Your task to perform on an android device: change the upload size in google photos Image 0: 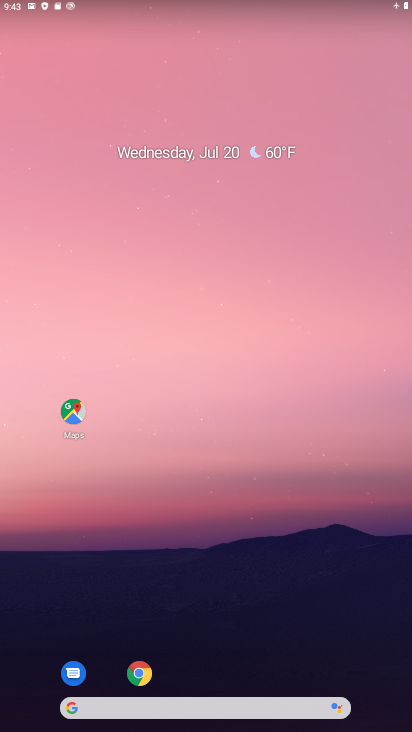
Step 0: drag from (216, 658) to (210, 4)
Your task to perform on an android device: change the upload size in google photos Image 1: 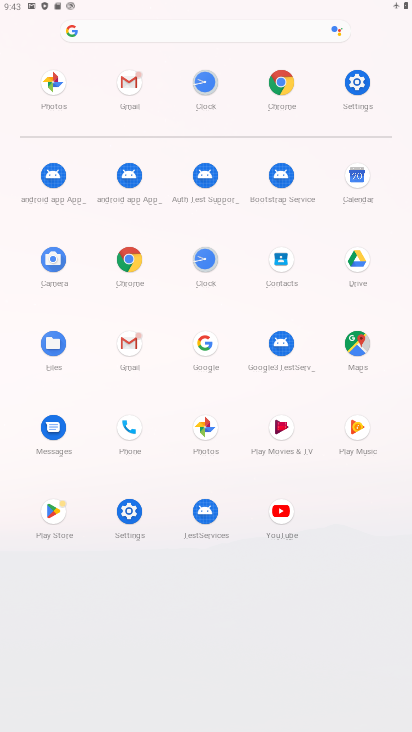
Step 1: click (209, 436)
Your task to perform on an android device: change the upload size in google photos Image 2: 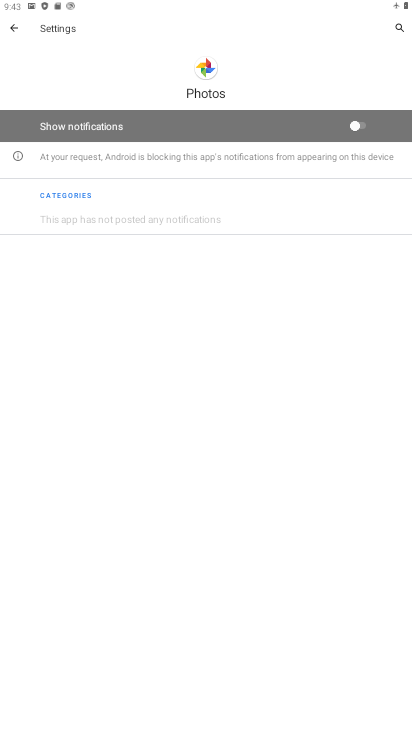
Step 2: click (17, 35)
Your task to perform on an android device: change the upload size in google photos Image 3: 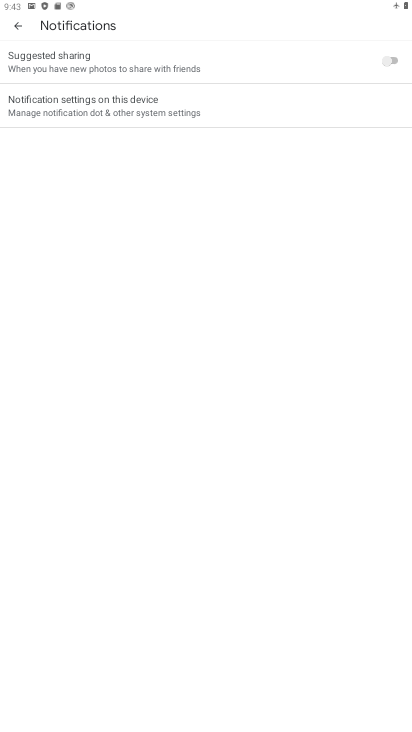
Step 3: click (14, 26)
Your task to perform on an android device: change the upload size in google photos Image 4: 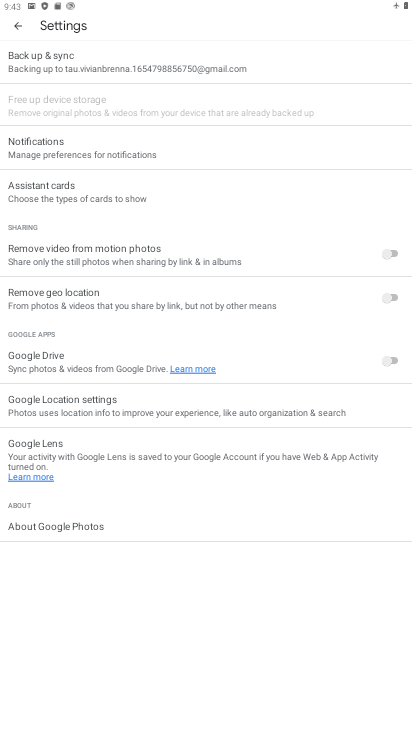
Step 4: click (16, 30)
Your task to perform on an android device: change the upload size in google photos Image 5: 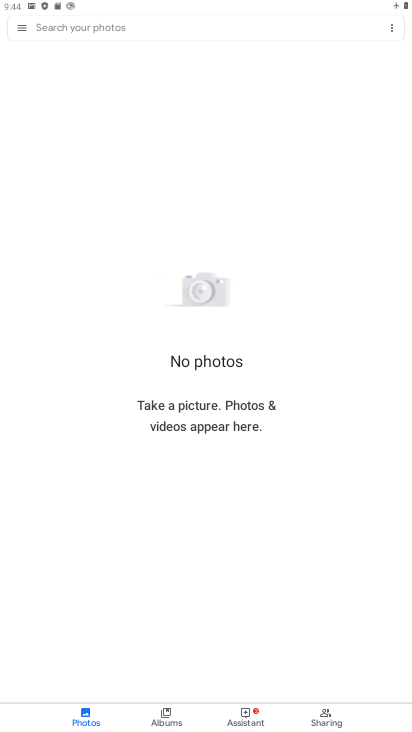
Step 5: click (26, 23)
Your task to perform on an android device: change the upload size in google photos Image 6: 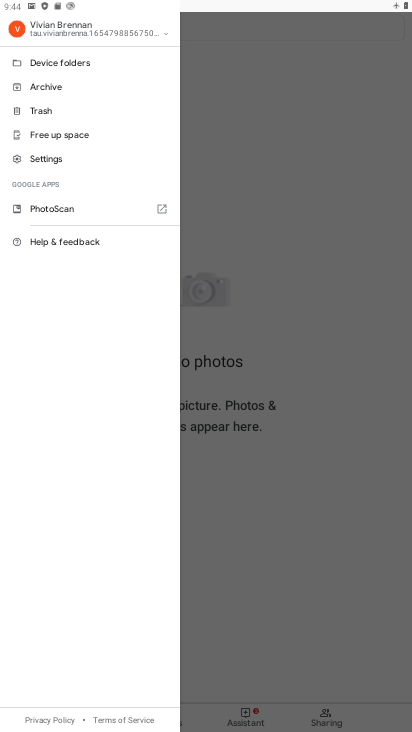
Step 6: click (58, 168)
Your task to perform on an android device: change the upload size in google photos Image 7: 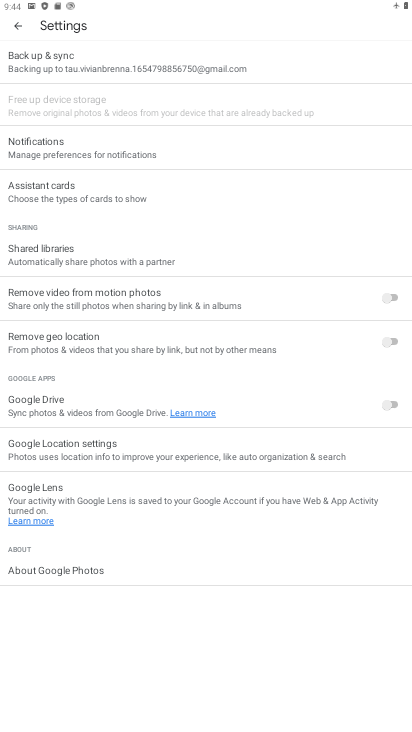
Step 7: click (84, 61)
Your task to perform on an android device: change the upload size in google photos Image 8: 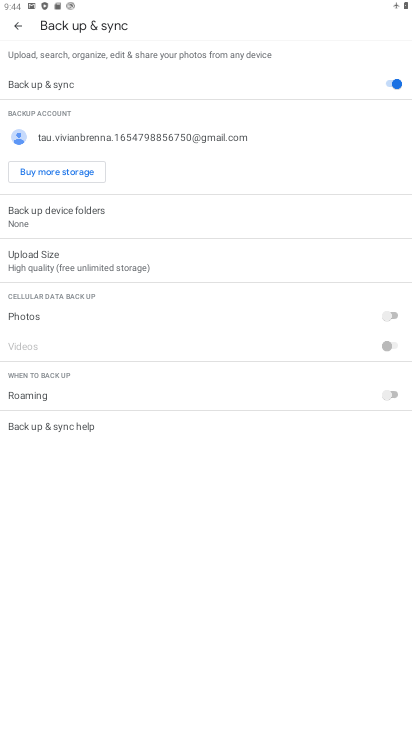
Step 8: click (90, 256)
Your task to perform on an android device: change the upload size in google photos Image 9: 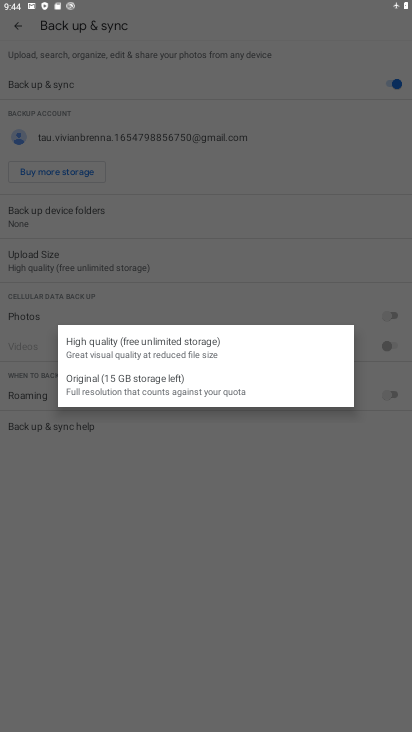
Step 9: click (101, 379)
Your task to perform on an android device: change the upload size in google photos Image 10: 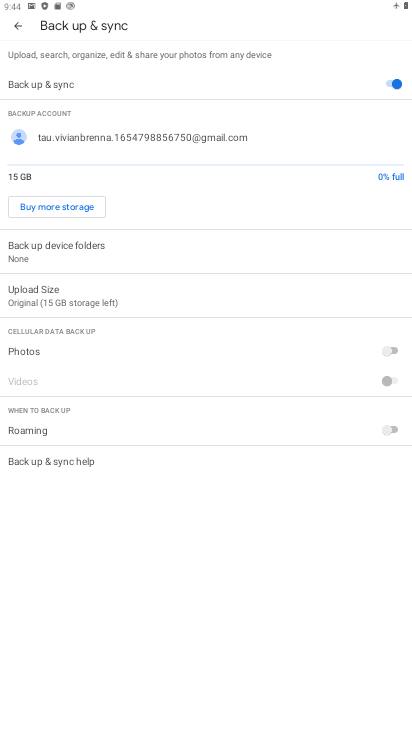
Step 10: task complete